Your task to perform on an android device: Open Google Maps and go to "Timeline" Image 0: 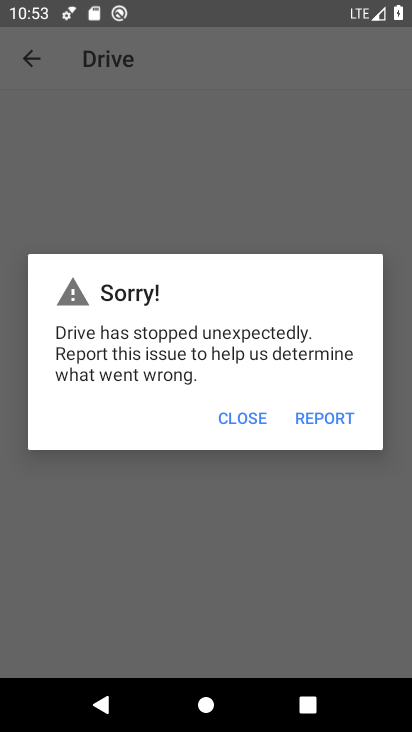
Step 0: drag from (255, 510) to (255, 159)
Your task to perform on an android device: Open Google Maps and go to "Timeline" Image 1: 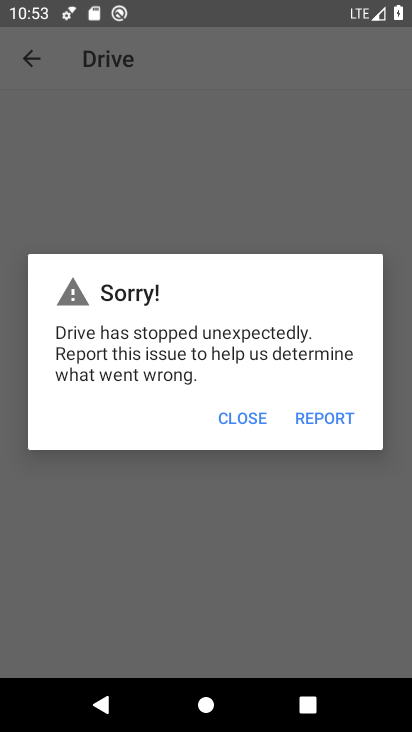
Step 1: press home button
Your task to perform on an android device: Open Google Maps and go to "Timeline" Image 2: 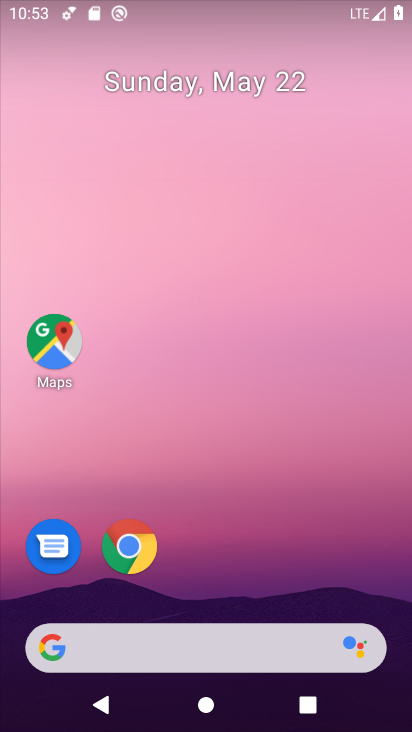
Step 2: drag from (239, 622) to (266, 75)
Your task to perform on an android device: Open Google Maps and go to "Timeline" Image 3: 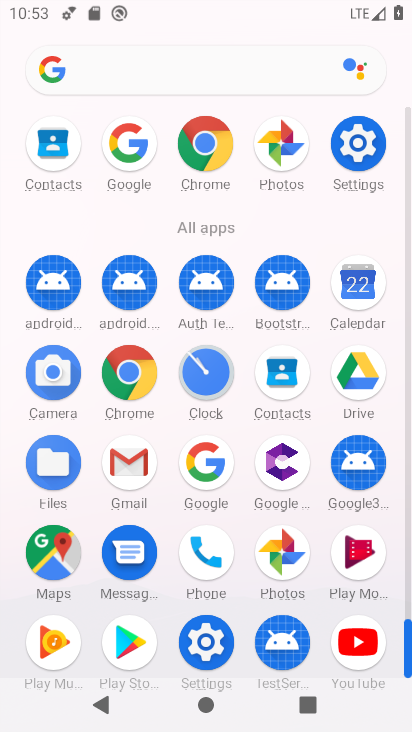
Step 3: click (54, 559)
Your task to perform on an android device: Open Google Maps and go to "Timeline" Image 4: 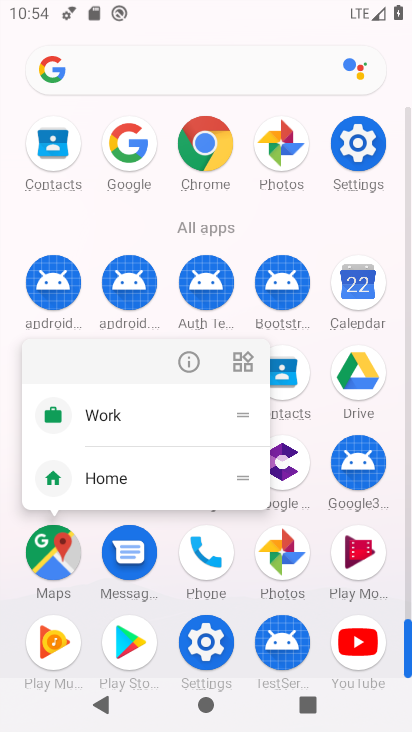
Step 4: click (60, 560)
Your task to perform on an android device: Open Google Maps and go to "Timeline" Image 5: 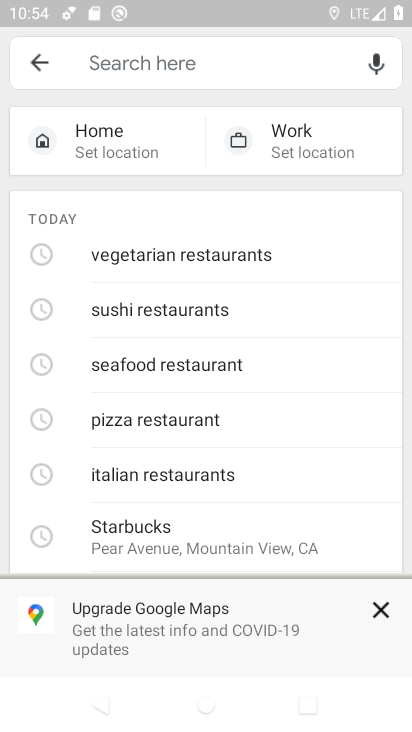
Step 5: click (386, 612)
Your task to perform on an android device: Open Google Maps and go to "Timeline" Image 6: 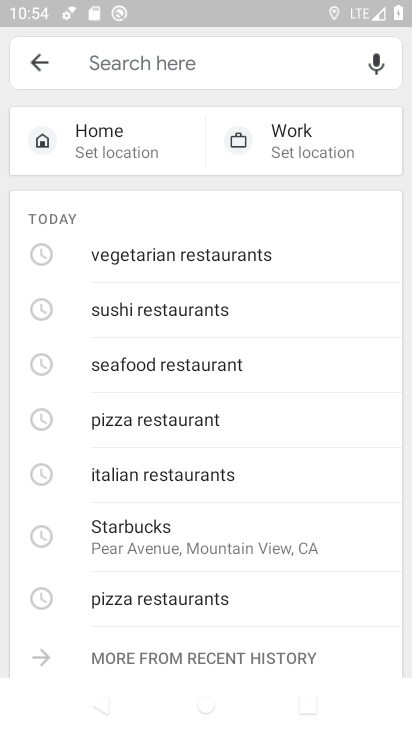
Step 6: click (40, 74)
Your task to perform on an android device: Open Google Maps and go to "Timeline" Image 7: 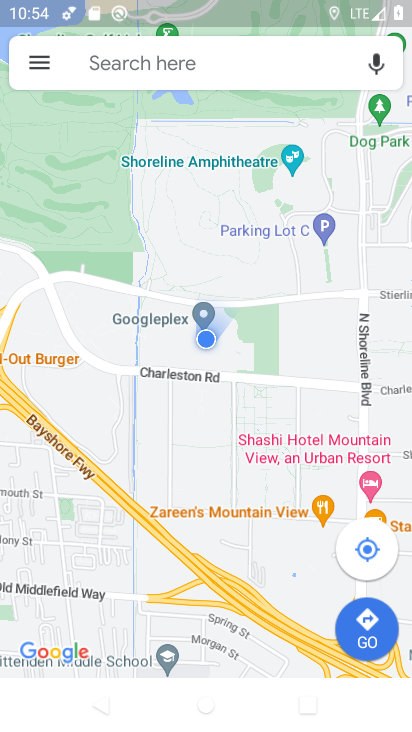
Step 7: click (46, 64)
Your task to perform on an android device: Open Google Maps and go to "Timeline" Image 8: 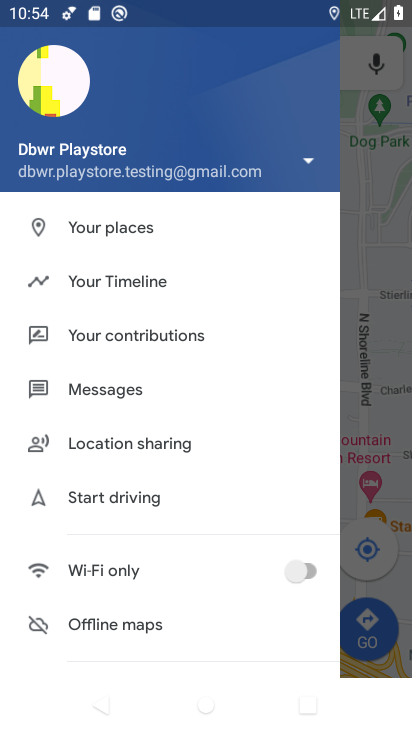
Step 8: click (139, 281)
Your task to perform on an android device: Open Google Maps and go to "Timeline" Image 9: 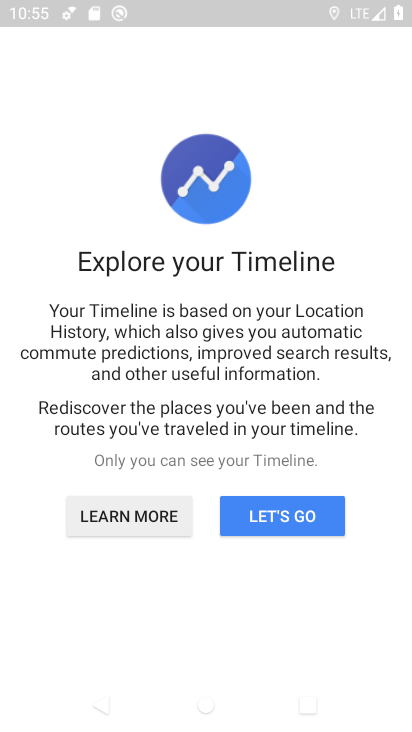
Step 9: click (322, 514)
Your task to perform on an android device: Open Google Maps and go to "Timeline" Image 10: 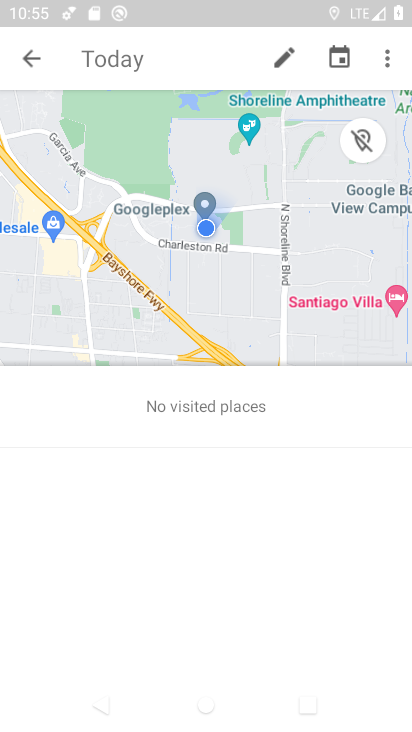
Step 10: task complete